Your task to perform on an android device: change the upload size in google photos Image 0: 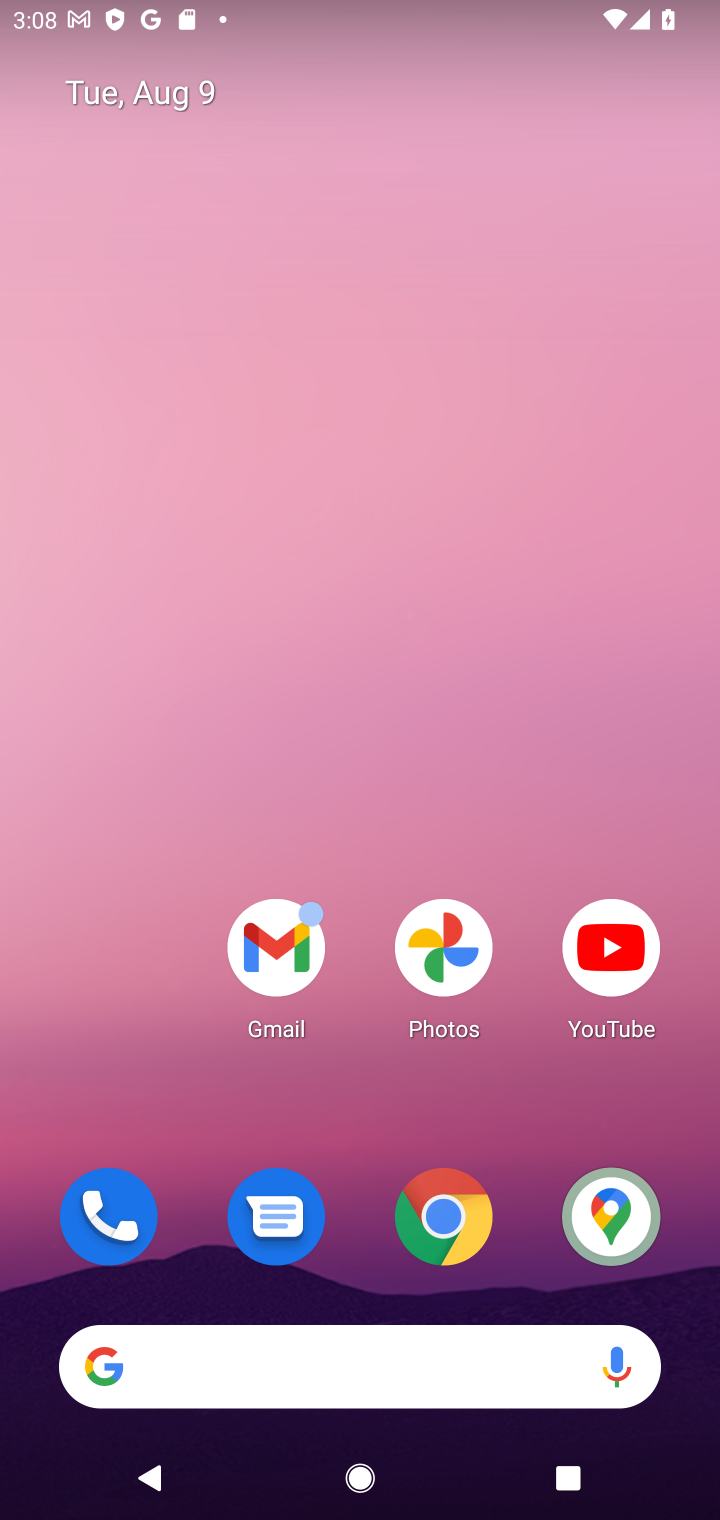
Step 0: click (402, 1020)
Your task to perform on an android device: change the upload size in google photos Image 1: 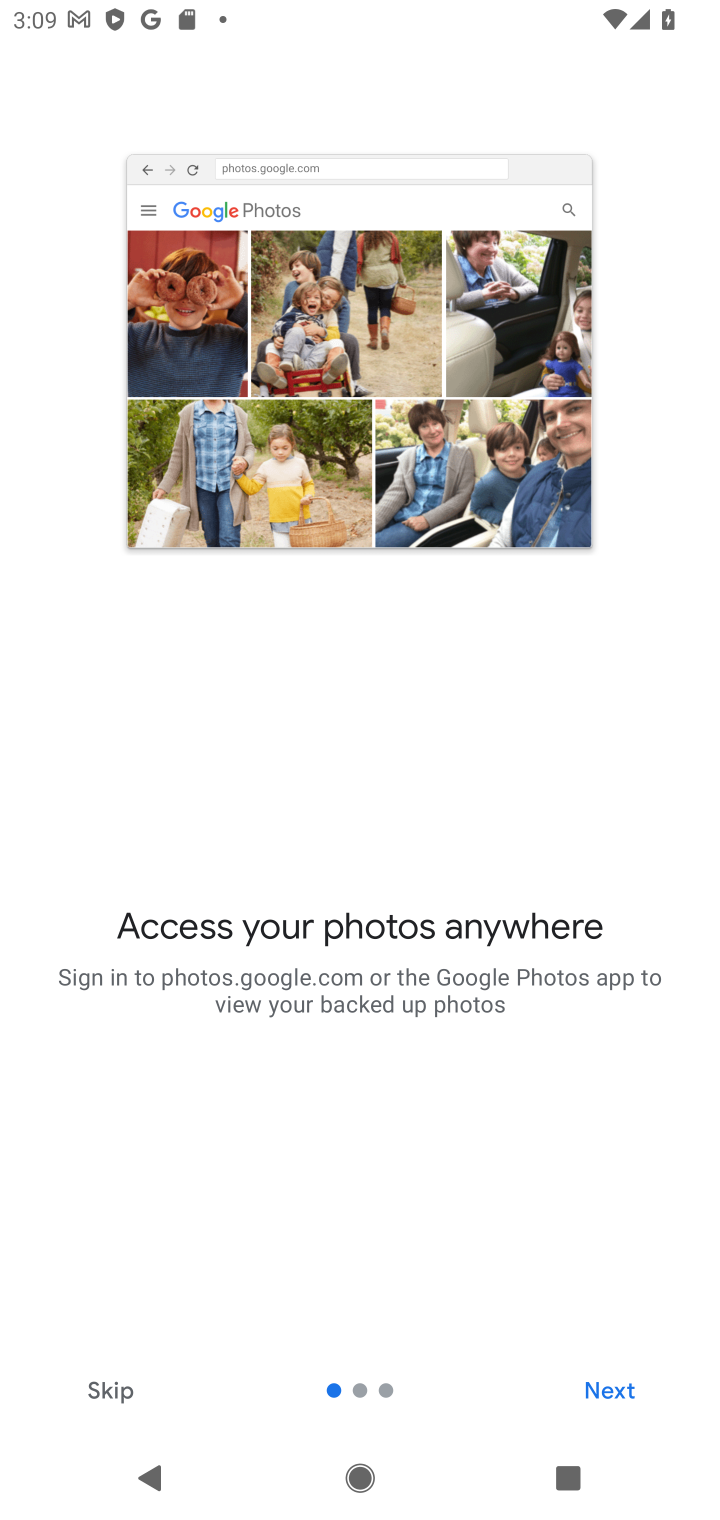
Step 1: click (81, 1391)
Your task to perform on an android device: change the upload size in google photos Image 2: 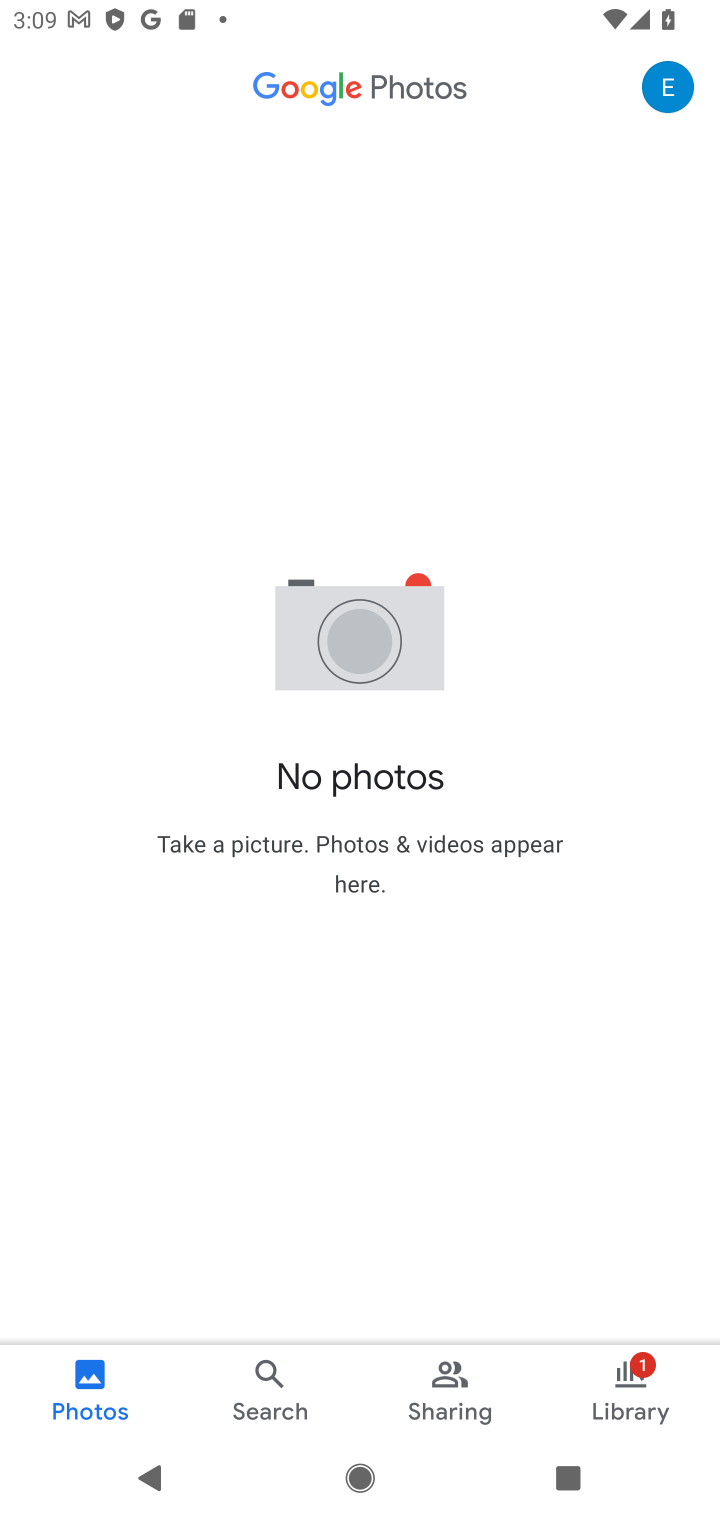
Step 2: click (675, 75)
Your task to perform on an android device: change the upload size in google photos Image 3: 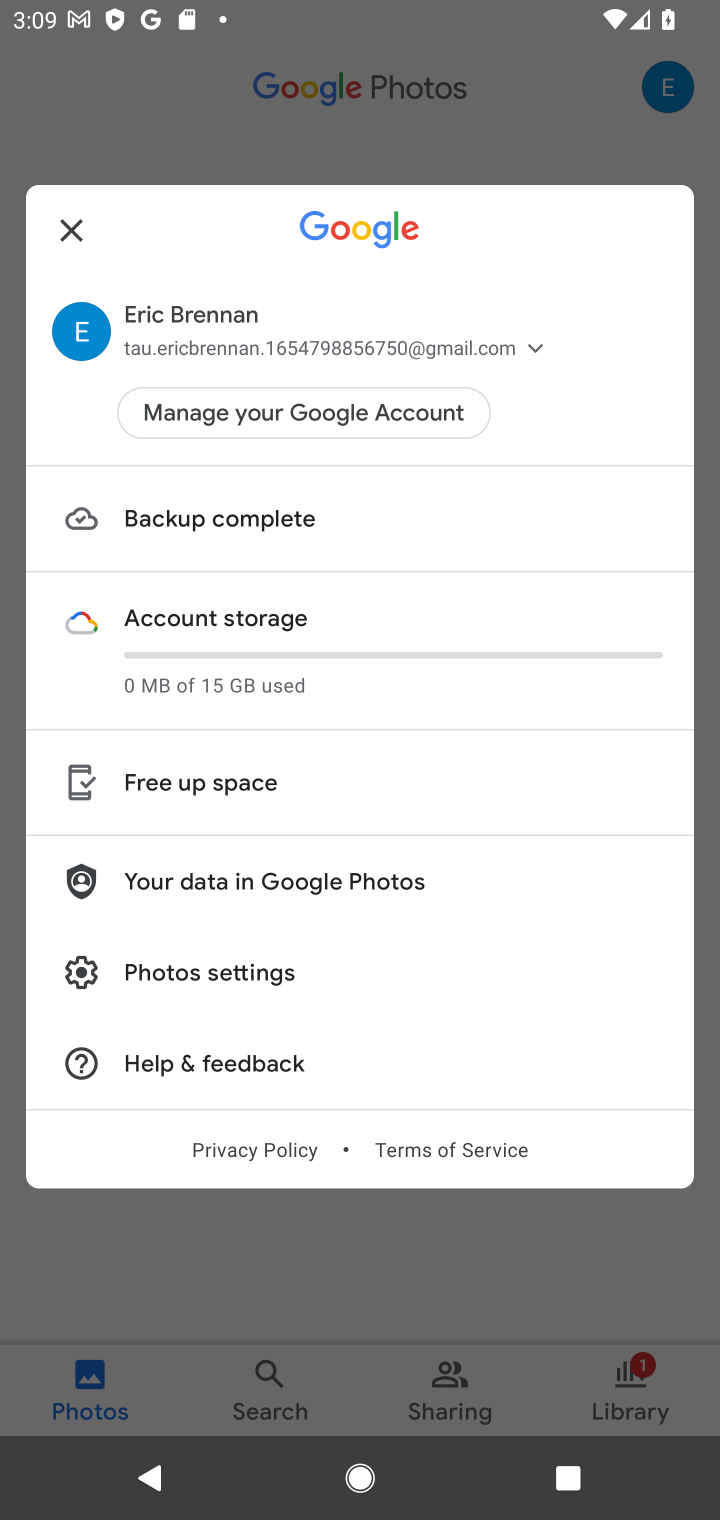
Step 3: click (207, 981)
Your task to perform on an android device: change the upload size in google photos Image 4: 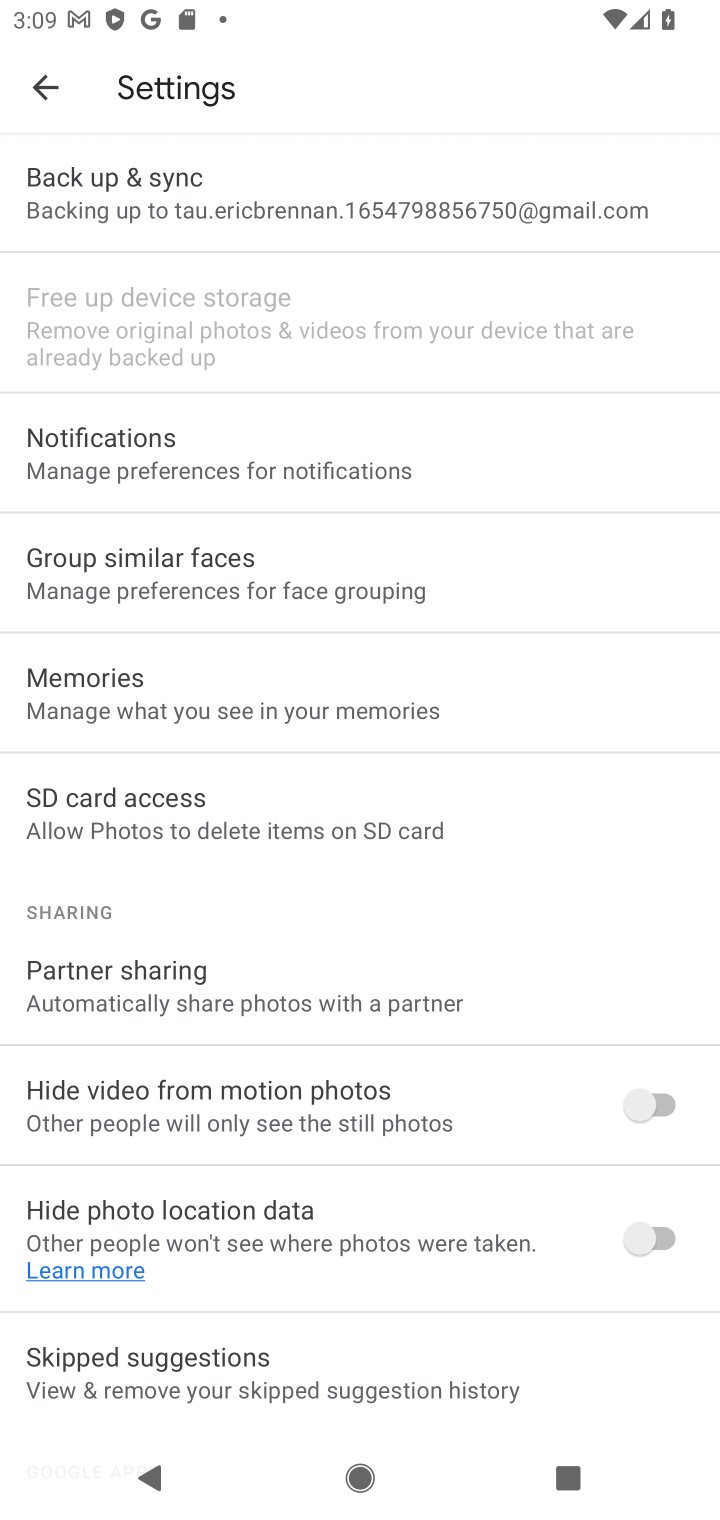
Step 4: click (270, 205)
Your task to perform on an android device: change the upload size in google photos Image 5: 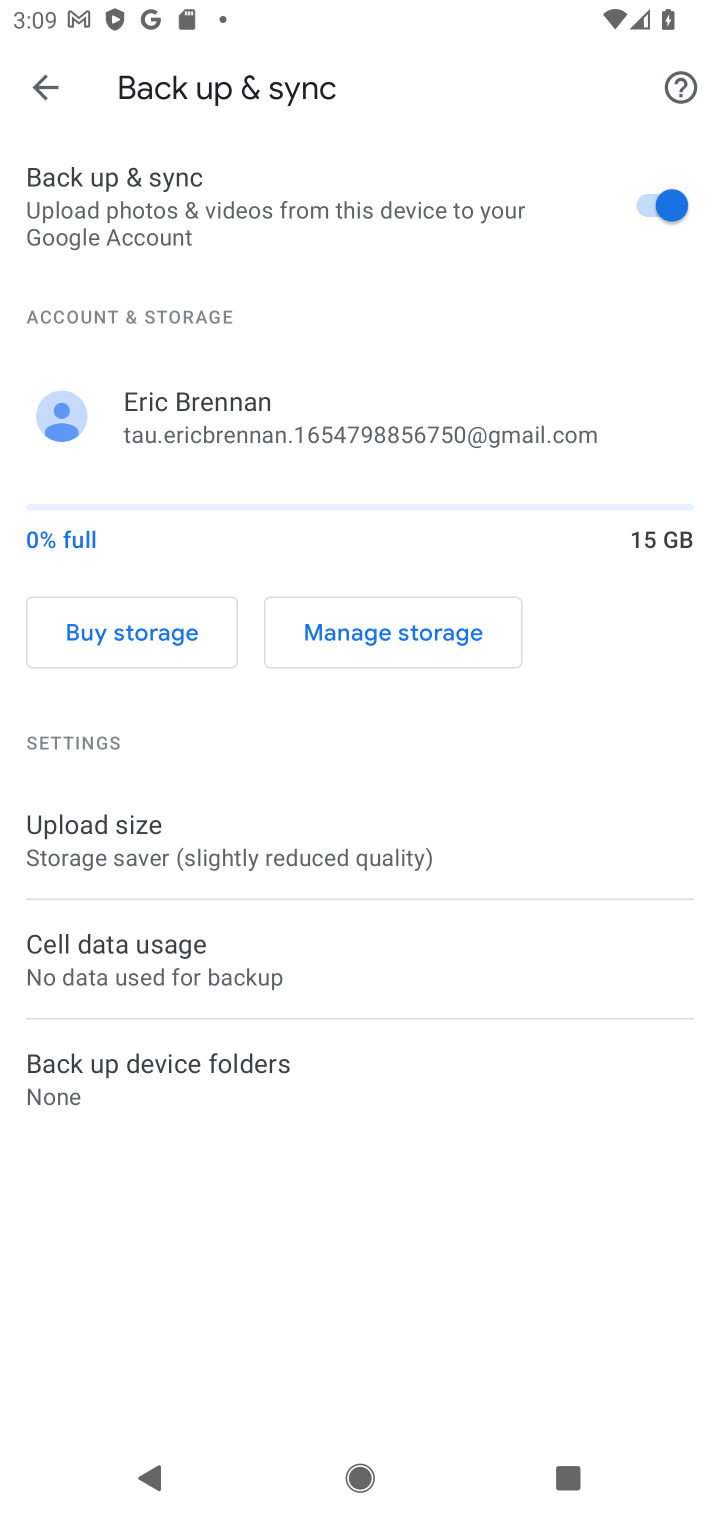
Step 5: click (195, 839)
Your task to perform on an android device: change the upload size in google photos Image 6: 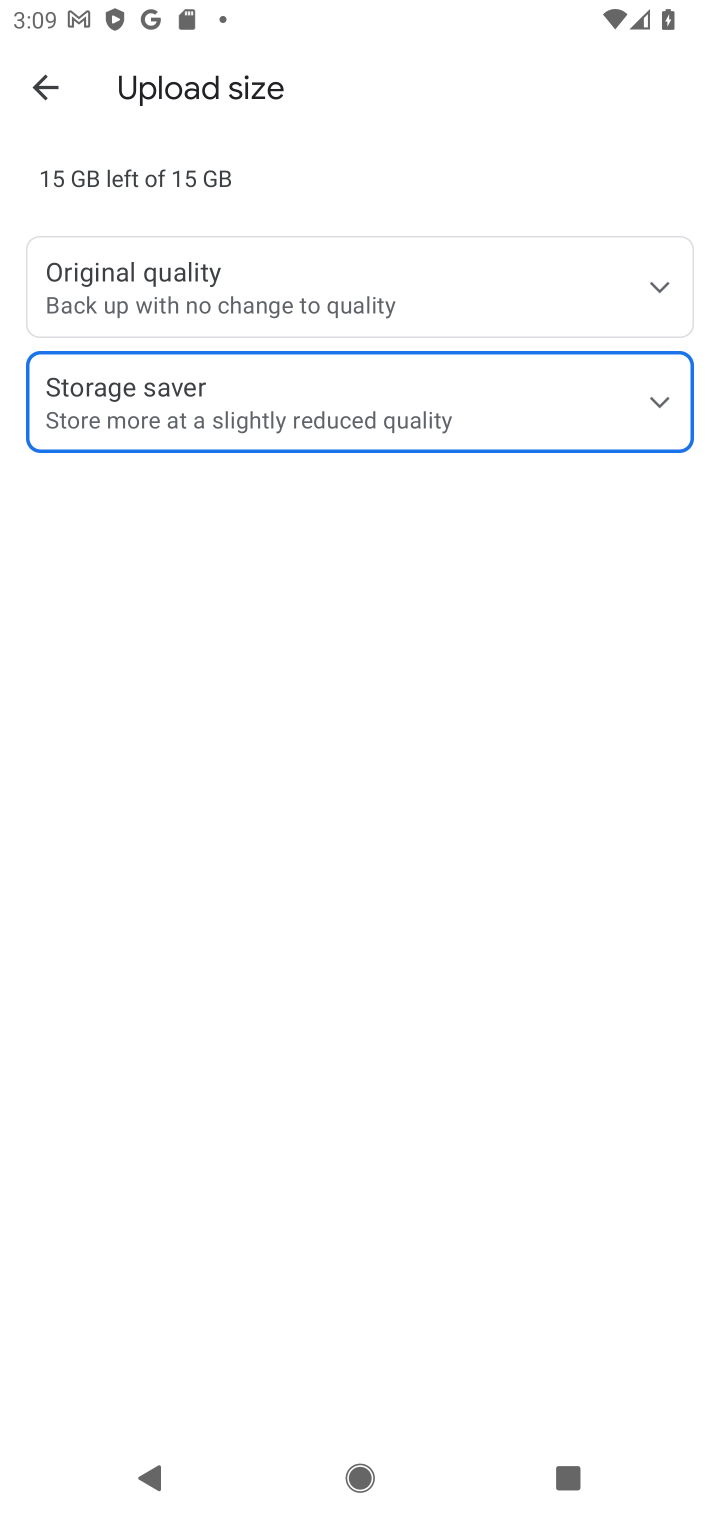
Step 6: click (249, 250)
Your task to perform on an android device: change the upload size in google photos Image 7: 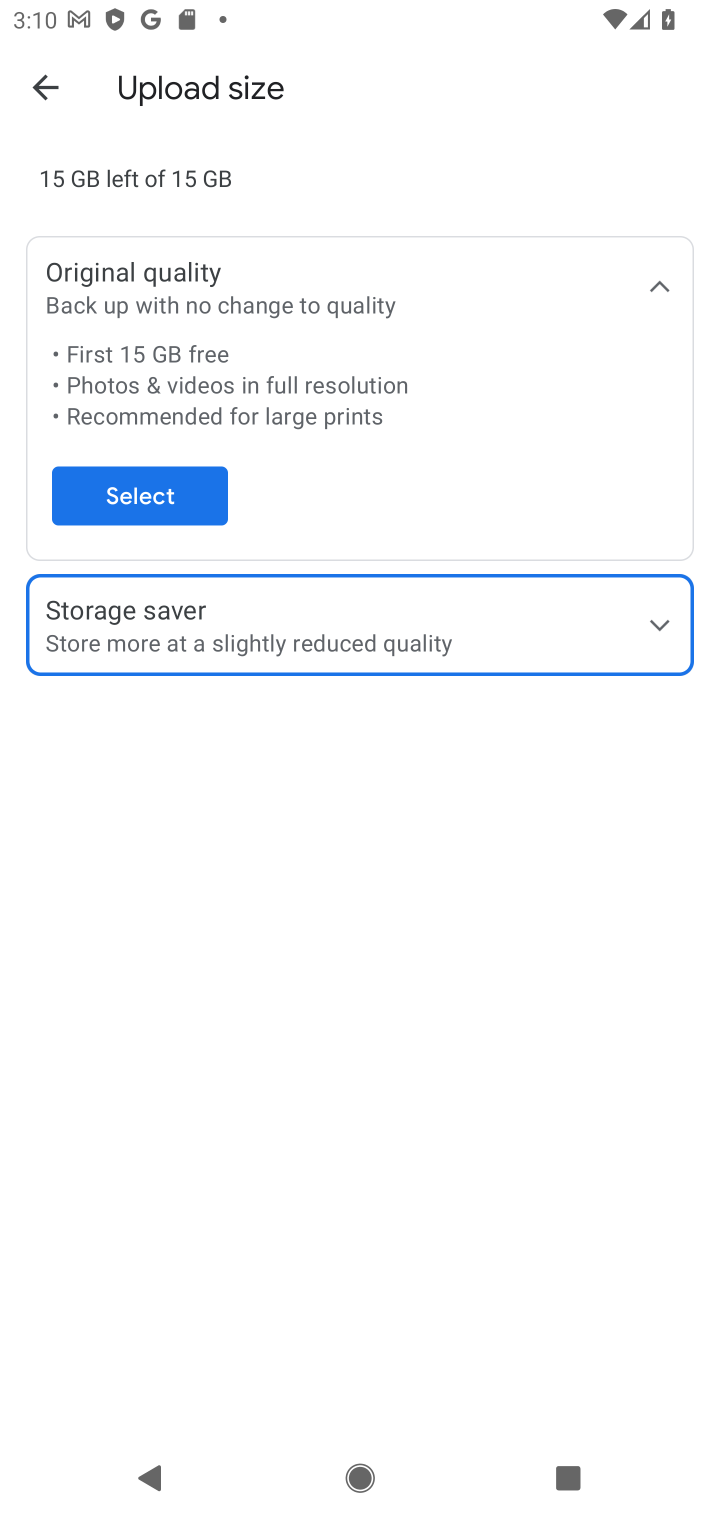
Step 7: click (163, 501)
Your task to perform on an android device: change the upload size in google photos Image 8: 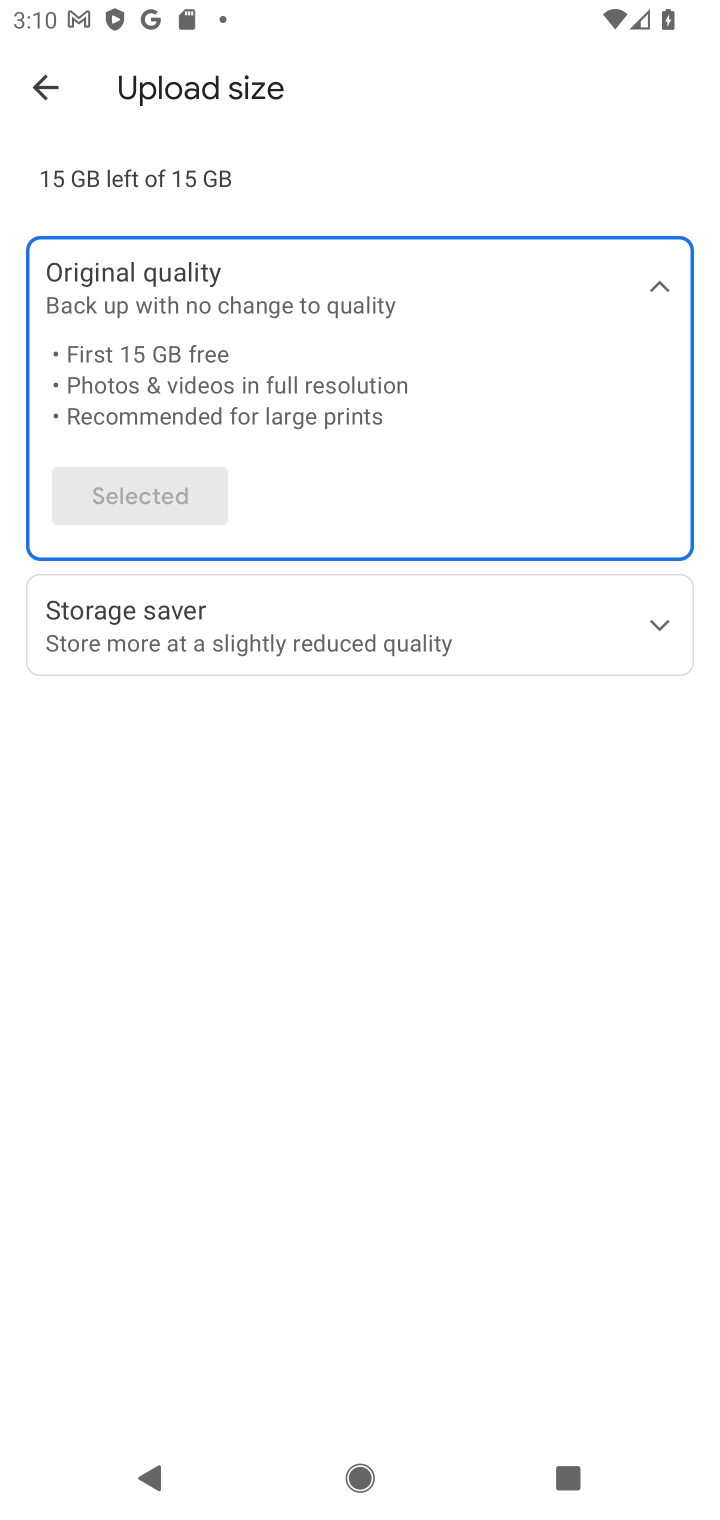
Step 8: task complete